Your task to perform on an android device: Open the gallery Image 0: 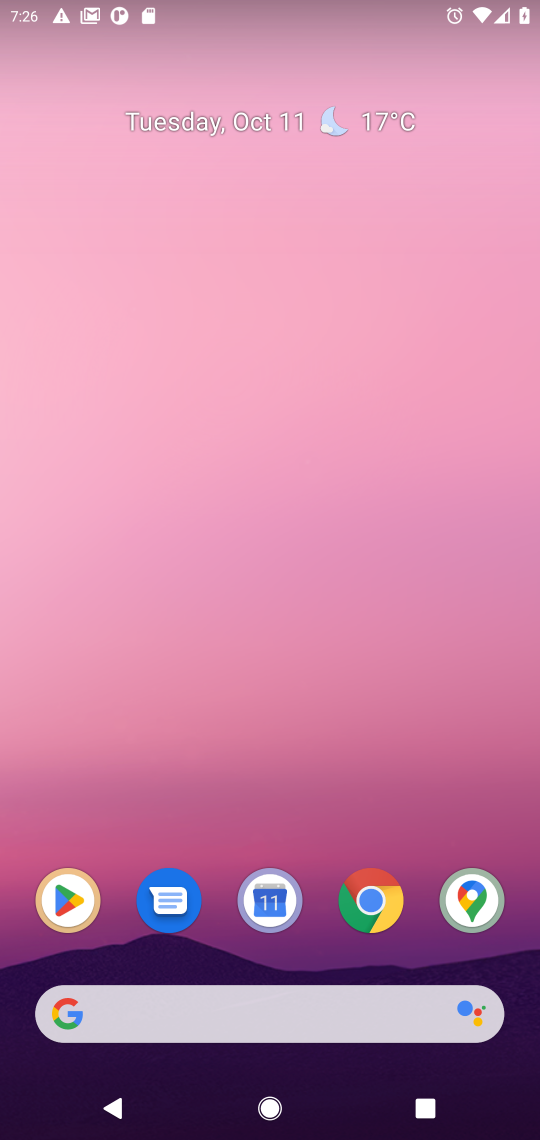
Step 0: drag from (289, 1015) to (519, 153)
Your task to perform on an android device: Open the gallery Image 1: 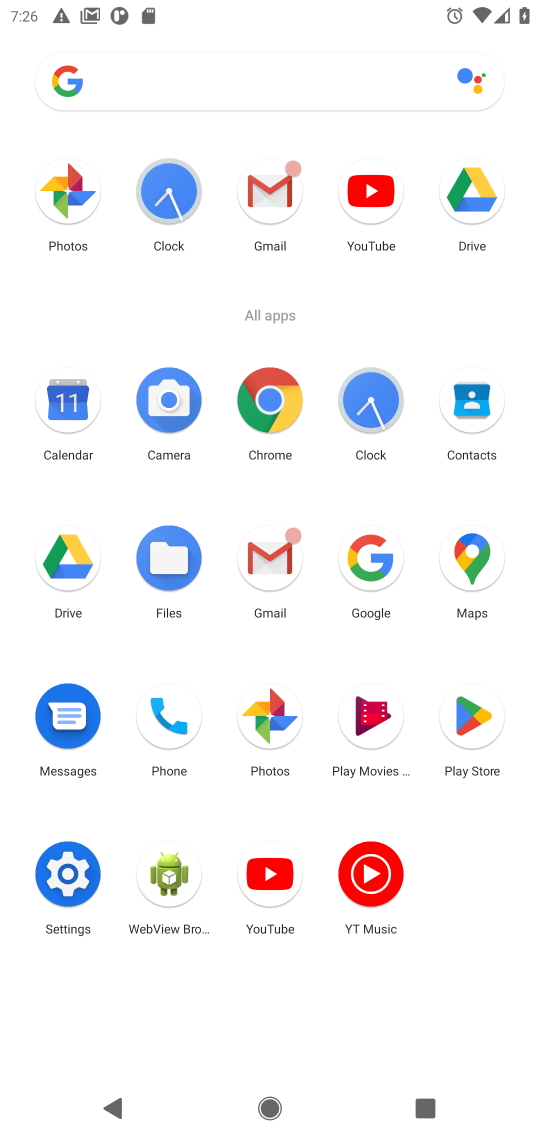
Step 1: click (267, 714)
Your task to perform on an android device: Open the gallery Image 2: 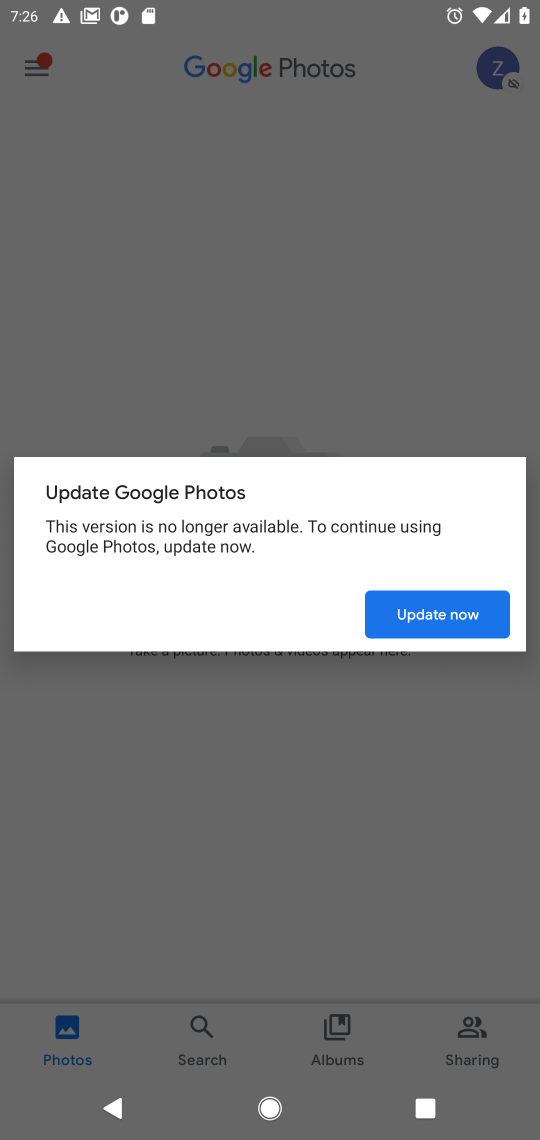
Step 2: click (393, 607)
Your task to perform on an android device: Open the gallery Image 3: 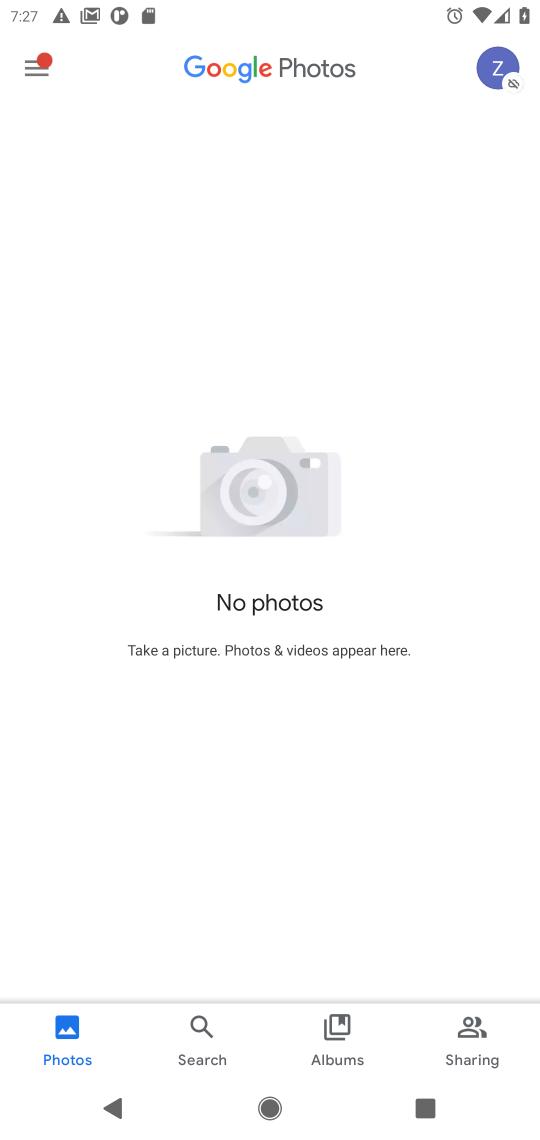
Step 3: task complete